Your task to perform on an android device: turn on the 24-hour format for clock Image 0: 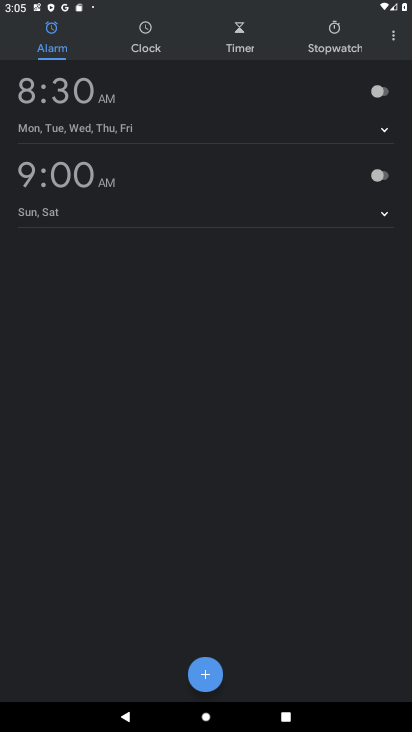
Step 0: press home button
Your task to perform on an android device: turn on the 24-hour format for clock Image 1: 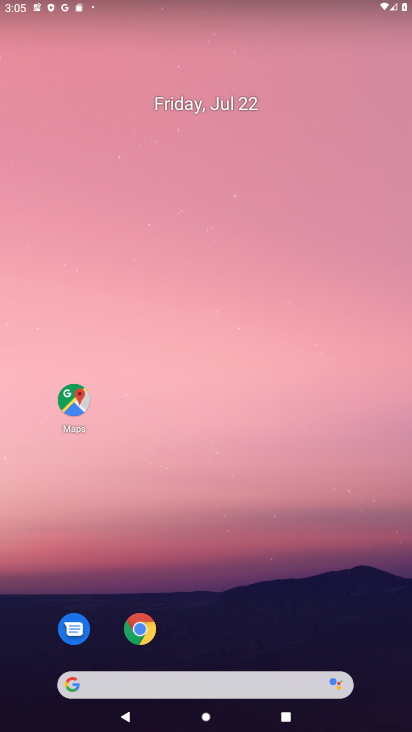
Step 1: drag from (221, 582) to (196, 9)
Your task to perform on an android device: turn on the 24-hour format for clock Image 2: 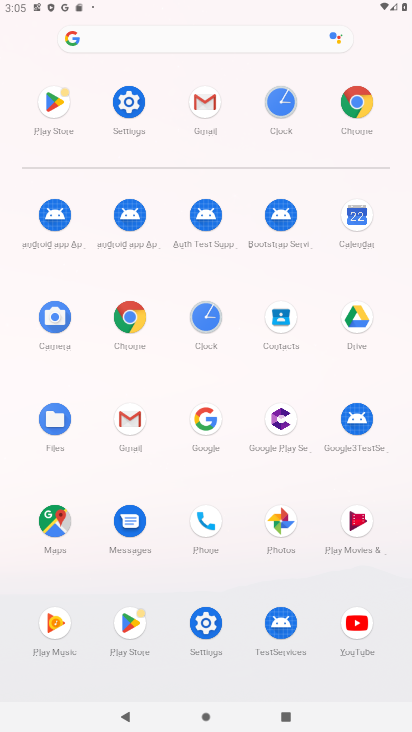
Step 2: click (206, 316)
Your task to perform on an android device: turn on the 24-hour format for clock Image 3: 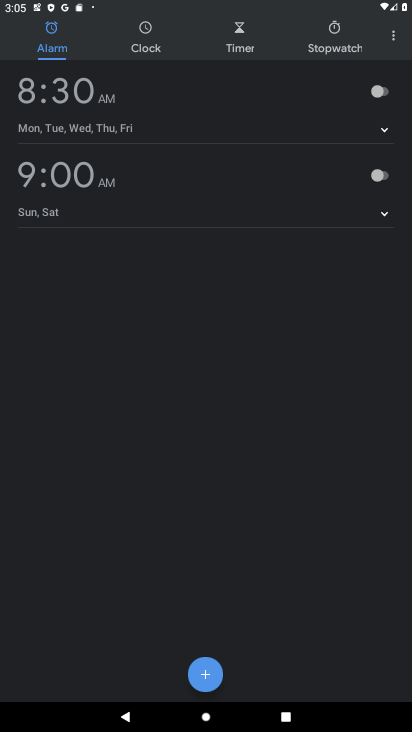
Step 3: click (391, 37)
Your task to perform on an android device: turn on the 24-hour format for clock Image 4: 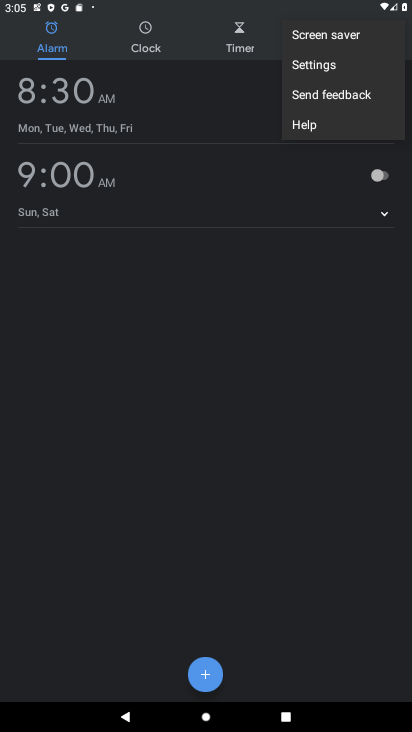
Step 4: click (312, 66)
Your task to perform on an android device: turn on the 24-hour format for clock Image 5: 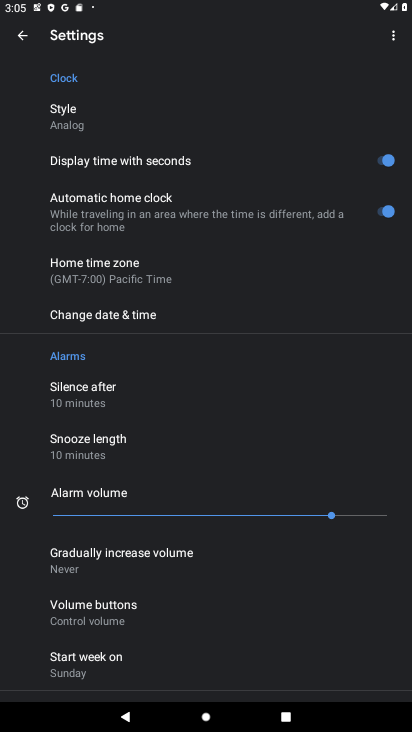
Step 5: click (112, 312)
Your task to perform on an android device: turn on the 24-hour format for clock Image 6: 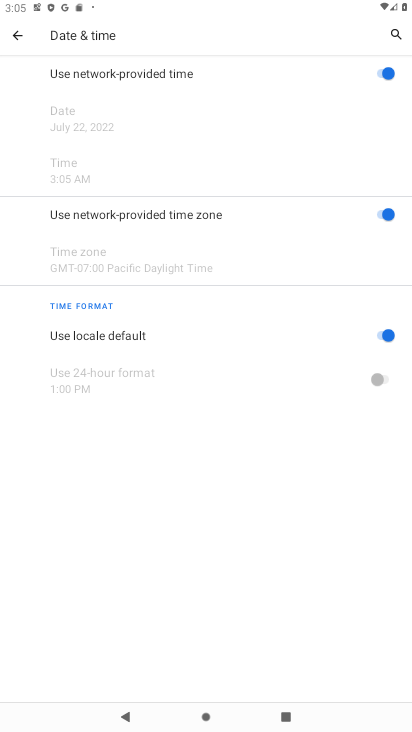
Step 6: click (384, 335)
Your task to perform on an android device: turn on the 24-hour format for clock Image 7: 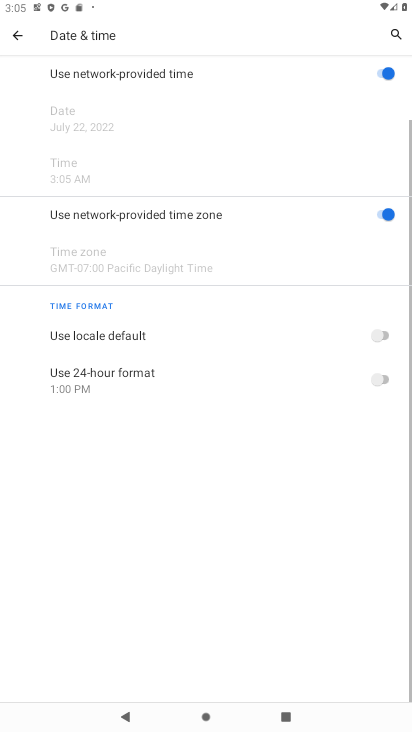
Step 7: click (378, 370)
Your task to perform on an android device: turn on the 24-hour format for clock Image 8: 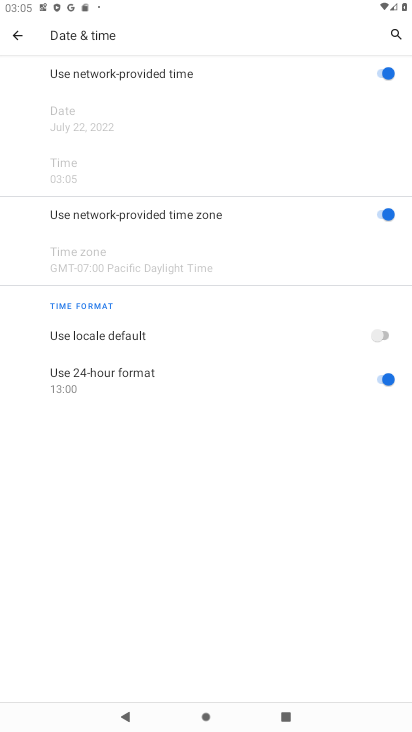
Step 8: task complete